Your task to perform on an android device: Open notification settings Image 0: 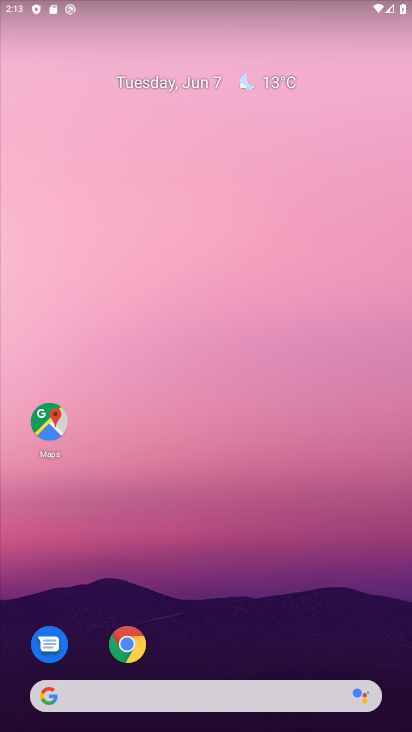
Step 0: drag from (219, 590) to (223, 201)
Your task to perform on an android device: Open notification settings Image 1: 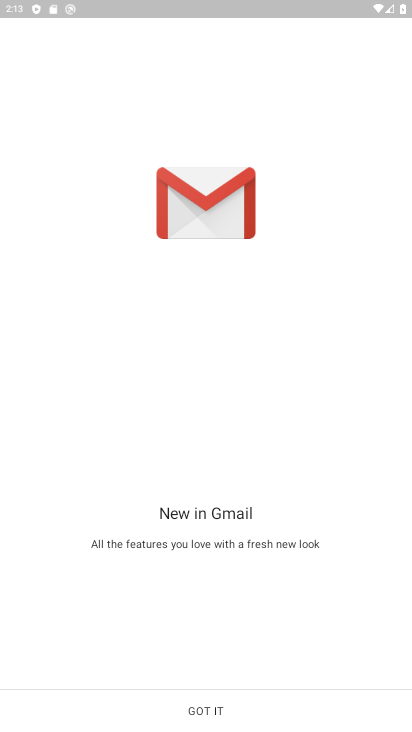
Step 1: press home button
Your task to perform on an android device: Open notification settings Image 2: 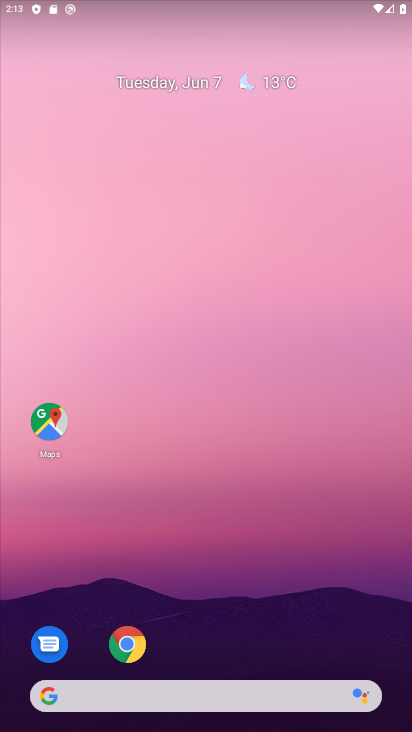
Step 2: drag from (213, 587) to (218, 97)
Your task to perform on an android device: Open notification settings Image 3: 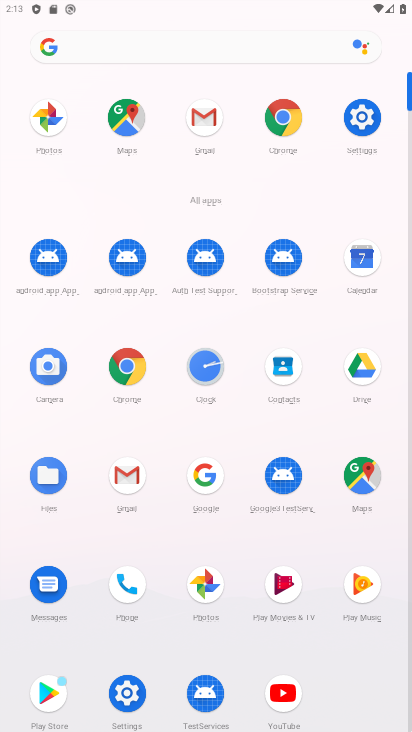
Step 3: click (359, 107)
Your task to perform on an android device: Open notification settings Image 4: 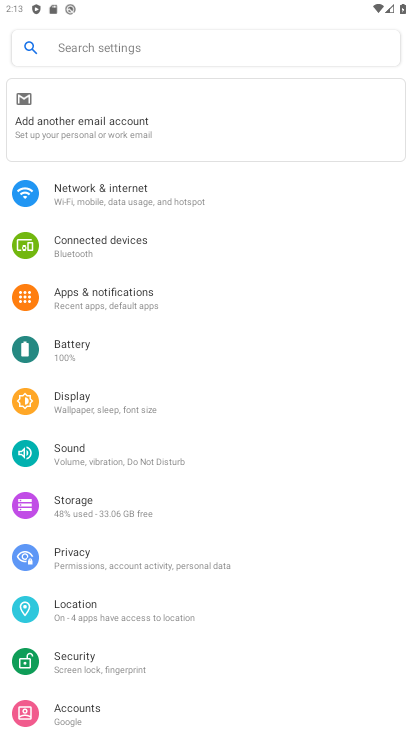
Step 4: click (170, 297)
Your task to perform on an android device: Open notification settings Image 5: 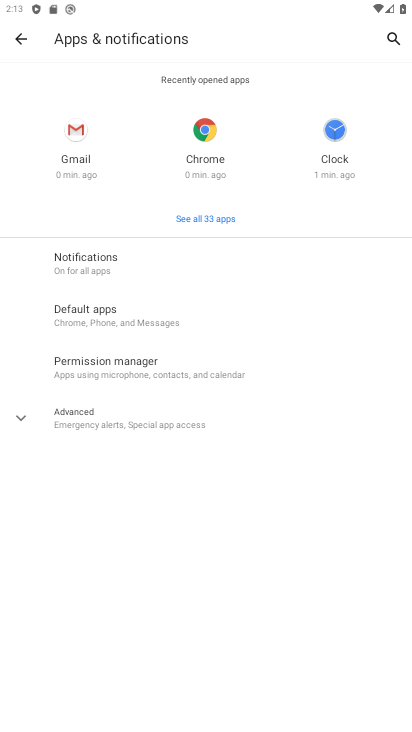
Step 5: click (133, 260)
Your task to perform on an android device: Open notification settings Image 6: 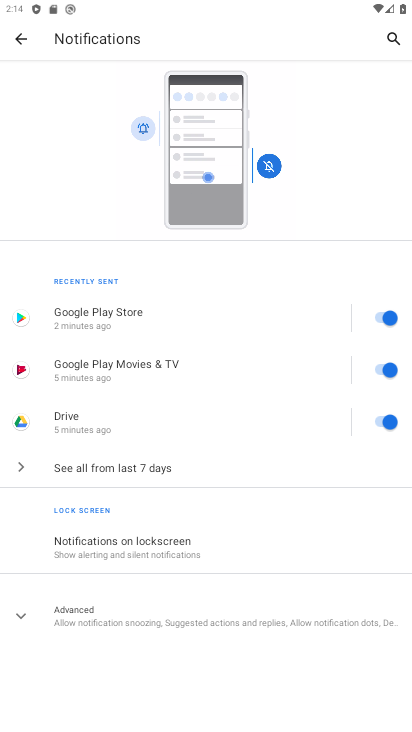
Step 6: click (17, 610)
Your task to perform on an android device: Open notification settings Image 7: 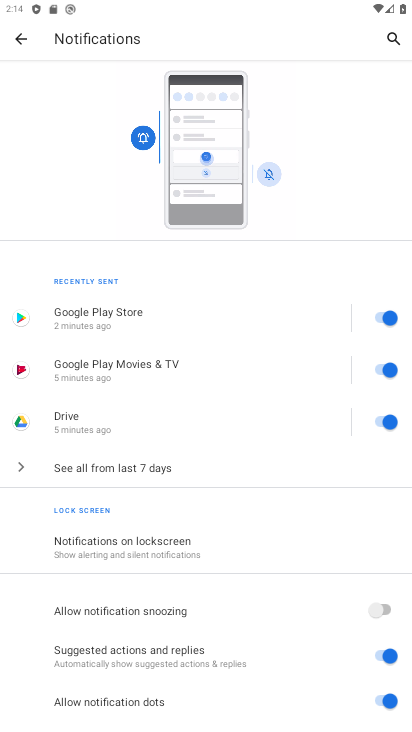
Step 7: click (218, 214)
Your task to perform on an android device: Open notification settings Image 8: 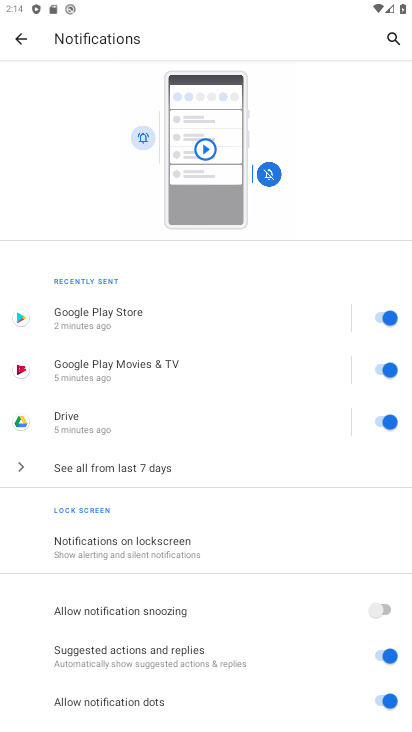
Step 8: click (384, 317)
Your task to perform on an android device: Open notification settings Image 9: 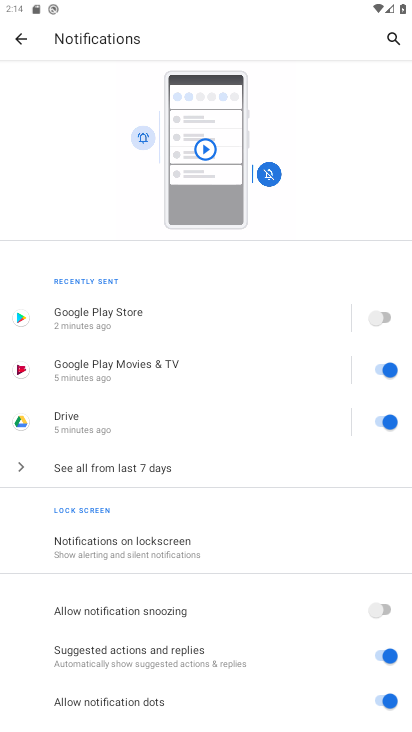
Step 9: click (380, 364)
Your task to perform on an android device: Open notification settings Image 10: 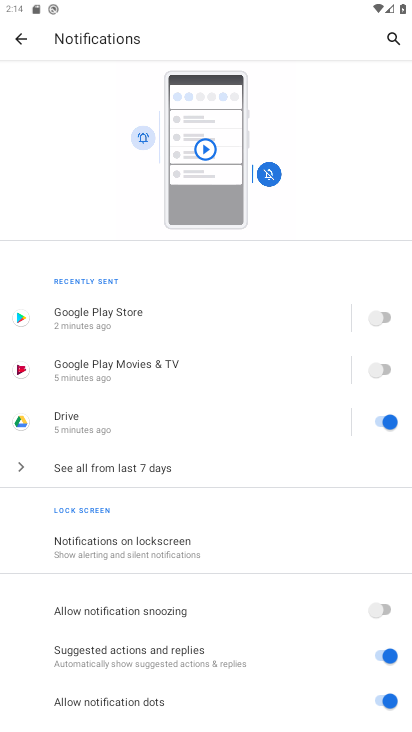
Step 10: click (384, 419)
Your task to perform on an android device: Open notification settings Image 11: 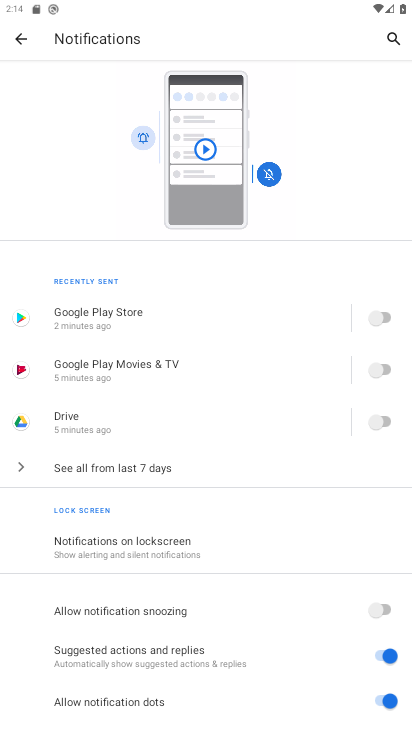
Step 11: click (388, 653)
Your task to perform on an android device: Open notification settings Image 12: 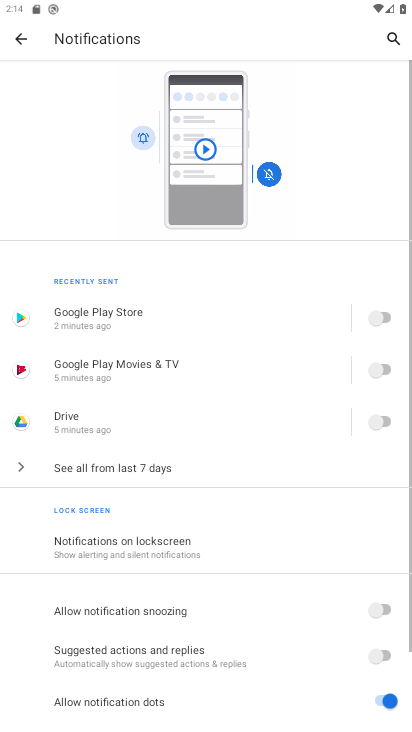
Step 12: click (375, 702)
Your task to perform on an android device: Open notification settings Image 13: 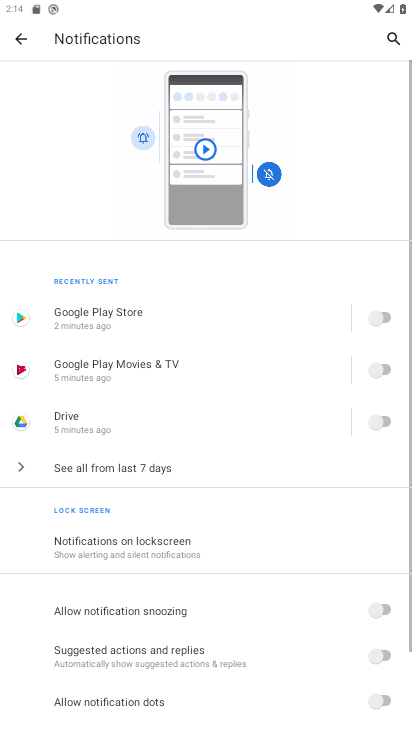
Step 13: task complete